Your task to perform on an android device: What's on my calendar tomorrow? Image 0: 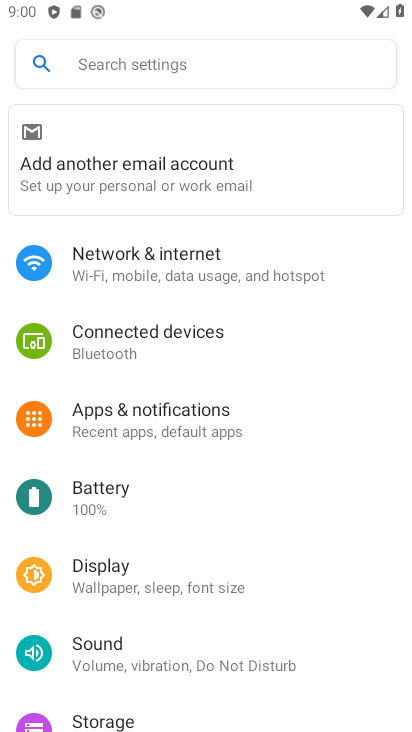
Step 0: press back button
Your task to perform on an android device: What's on my calendar tomorrow? Image 1: 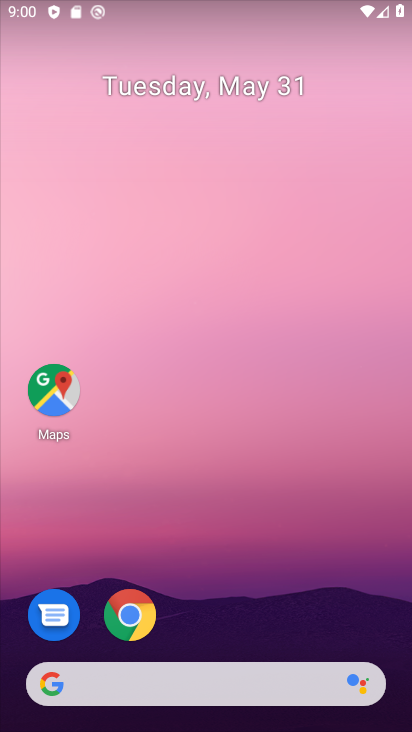
Step 1: drag from (254, 486) to (292, 62)
Your task to perform on an android device: What's on my calendar tomorrow? Image 2: 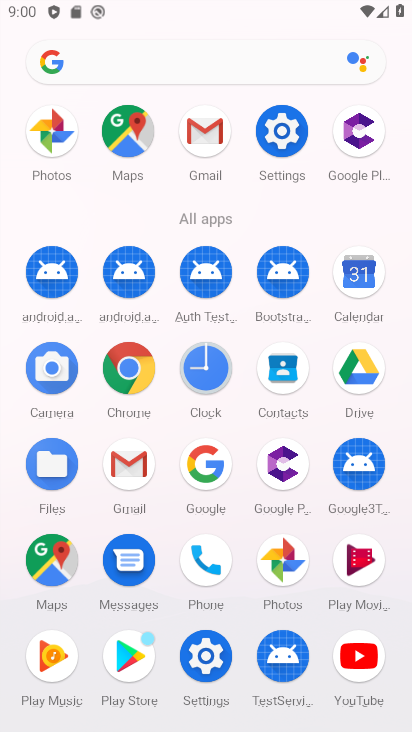
Step 2: click (364, 283)
Your task to perform on an android device: What's on my calendar tomorrow? Image 3: 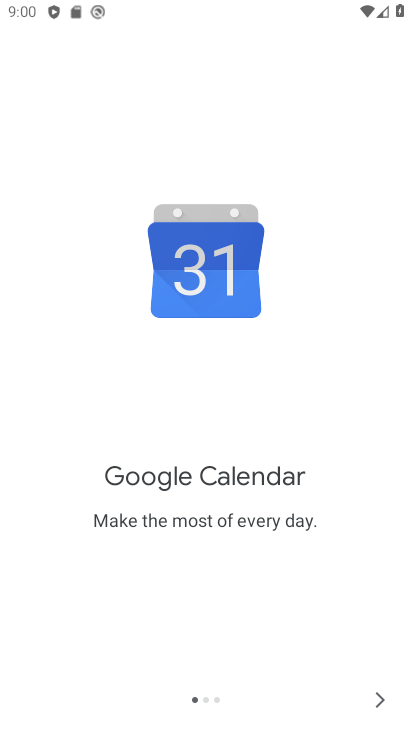
Step 3: click (381, 682)
Your task to perform on an android device: What's on my calendar tomorrow? Image 4: 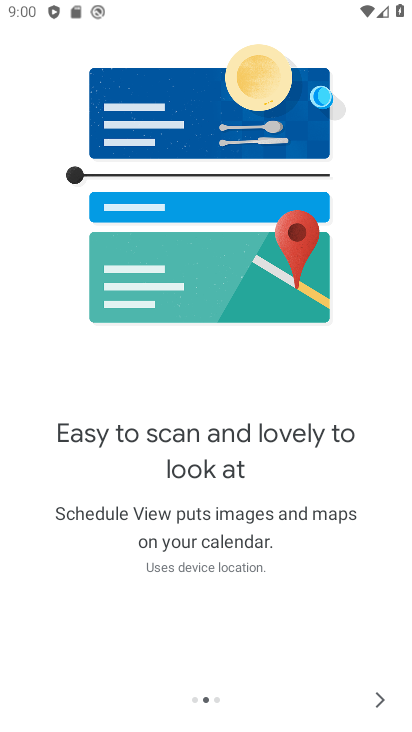
Step 4: click (380, 682)
Your task to perform on an android device: What's on my calendar tomorrow? Image 5: 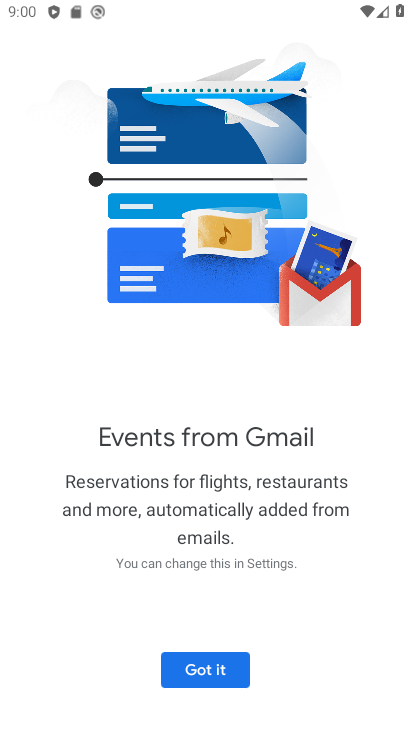
Step 5: click (193, 670)
Your task to perform on an android device: What's on my calendar tomorrow? Image 6: 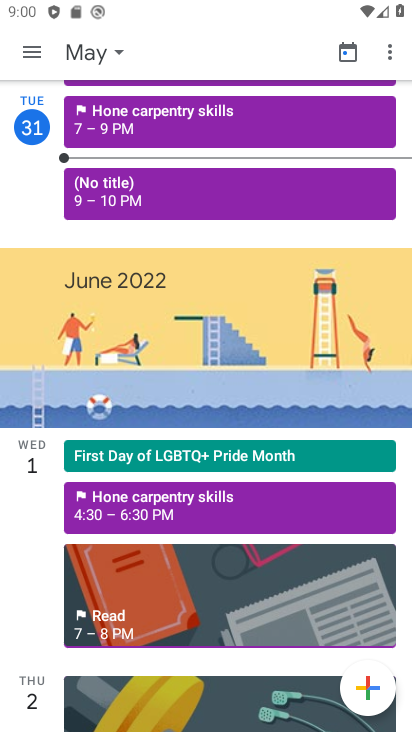
Step 6: drag from (205, 629) to (227, 126)
Your task to perform on an android device: What's on my calendar tomorrow? Image 7: 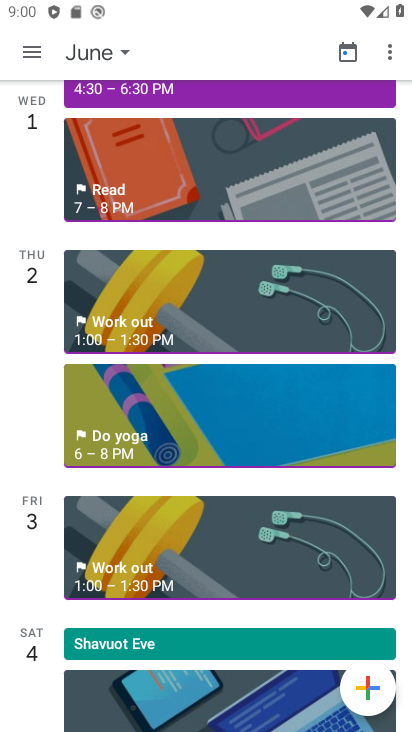
Step 7: click (153, 297)
Your task to perform on an android device: What's on my calendar tomorrow? Image 8: 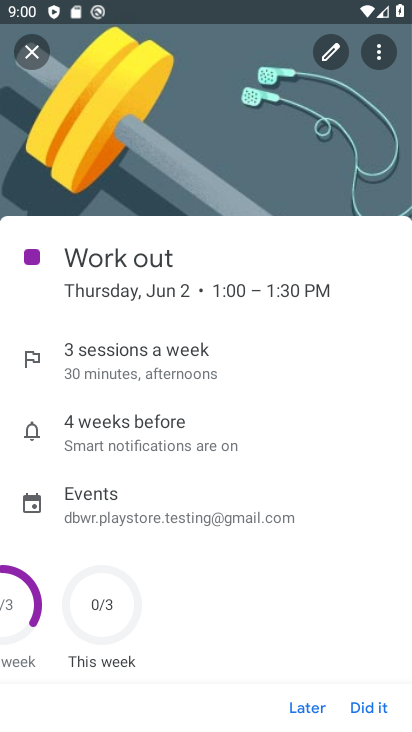
Step 8: task complete